Your task to perform on an android device: Check the news Image 0: 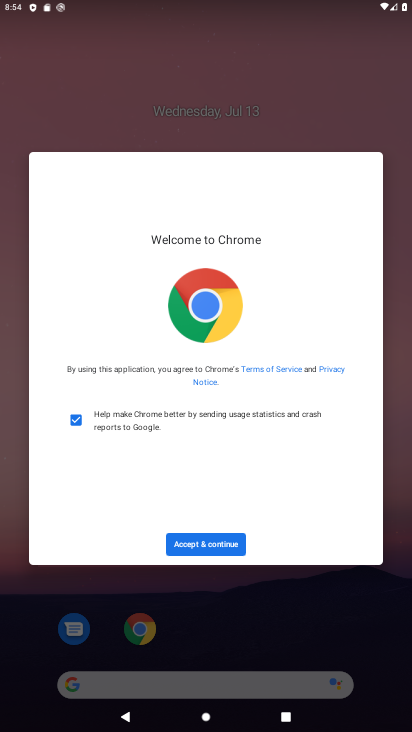
Step 0: press home button
Your task to perform on an android device: Check the news Image 1: 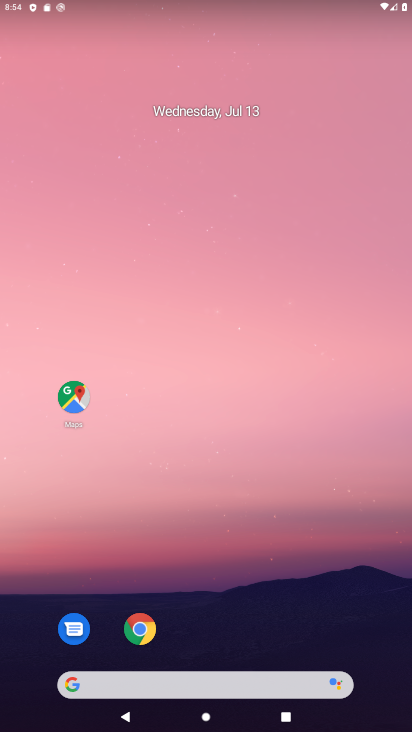
Step 1: click (198, 683)
Your task to perform on an android device: Check the news Image 2: 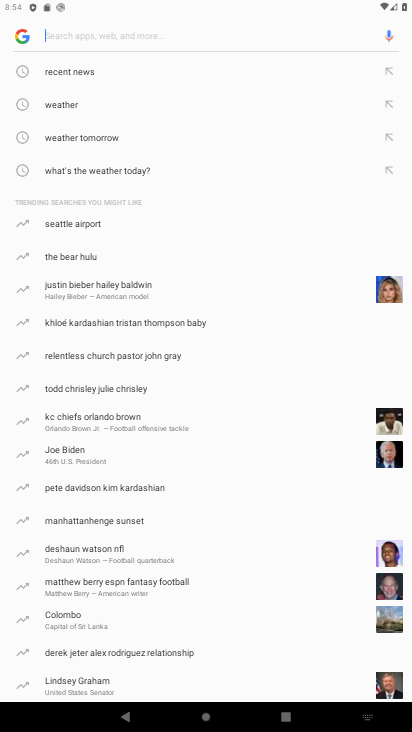
Step 2: type "news"
Your task to perform on an android device: Check the news Image 3: 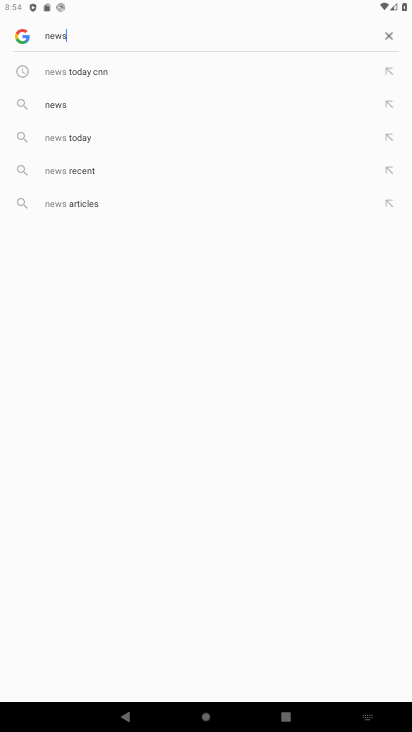
Step 3: click (93, 102)
Your task to perform on an android device: Check the news Image 4: 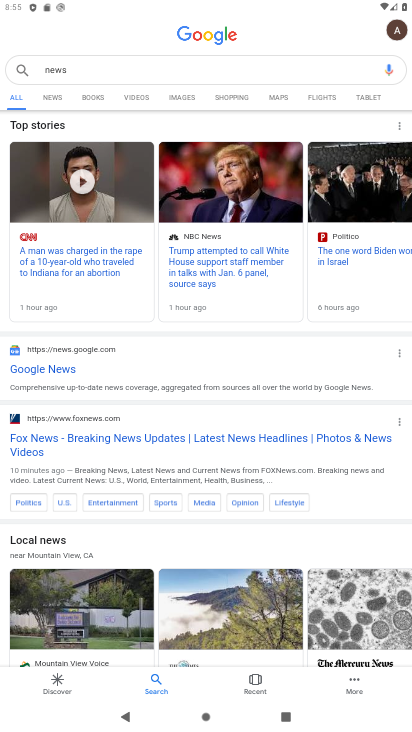
Step 4: click (56, 99)
Your task to perform on an android device: Check the news Image 5: 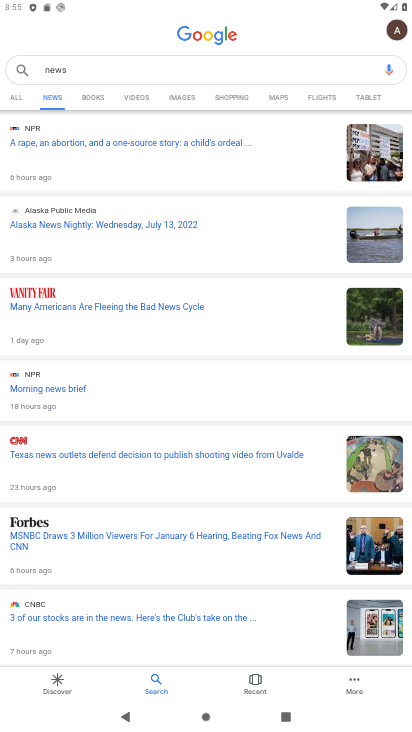
Step 5: task complete